Your task to perform on an android device: Go to Android settings Image 0: 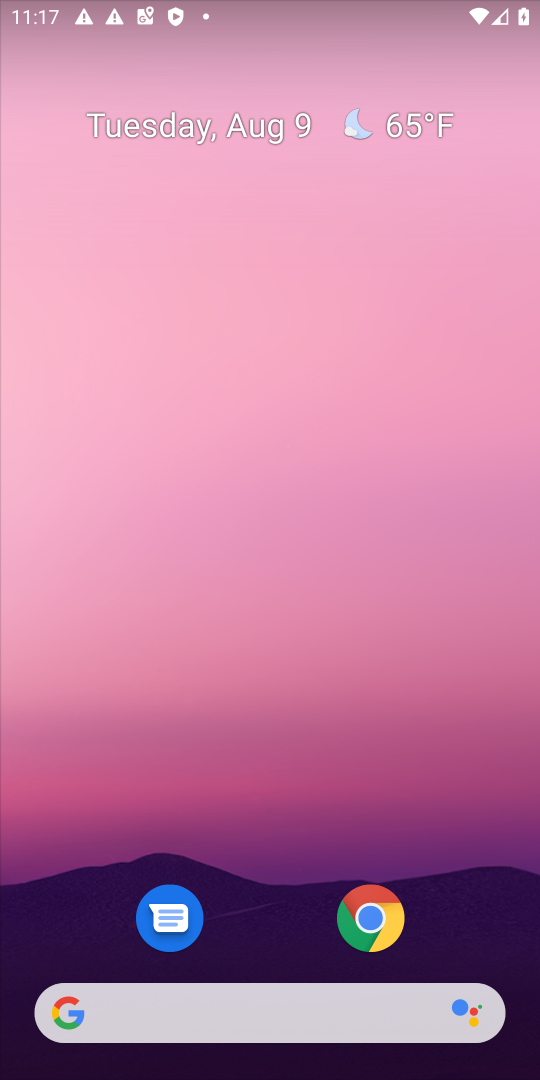
Step 0: drag from (250, 752) to (336, 47)
Your task to perform on an android device: Go to Android settings Image 1: 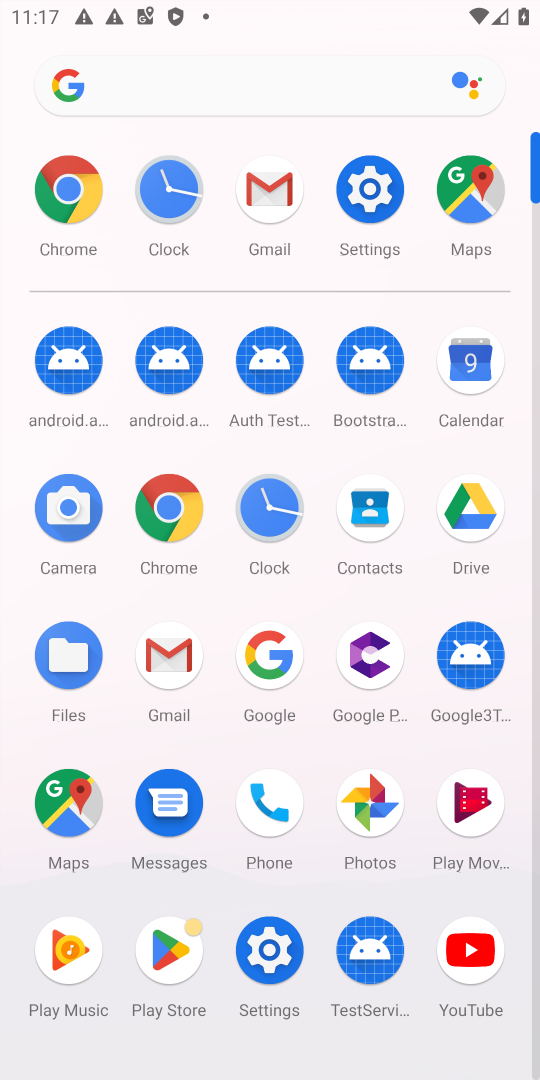
Step 1: click (278, 948)
Your task to perform on an android device: Go to Android settings Image 2: 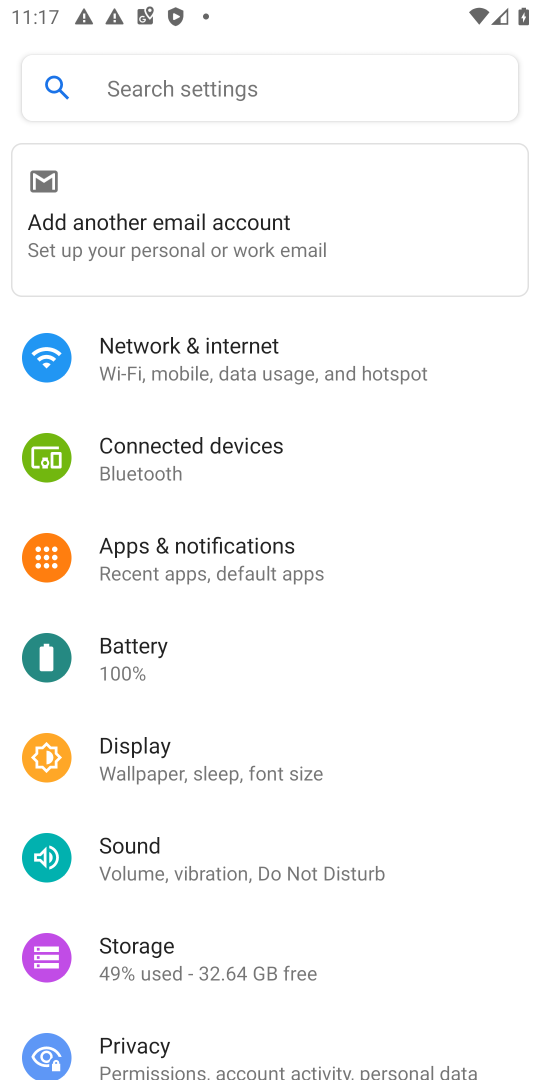
Step 2: task complete